Your task to perform on an android device: change the clock display to analog Image 0: 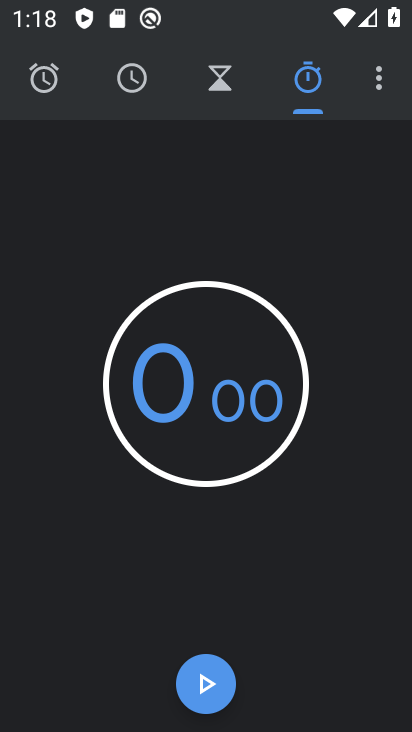
Step 0: press home button
Your task to perform on an android device: change the clock display to analog Image 1: 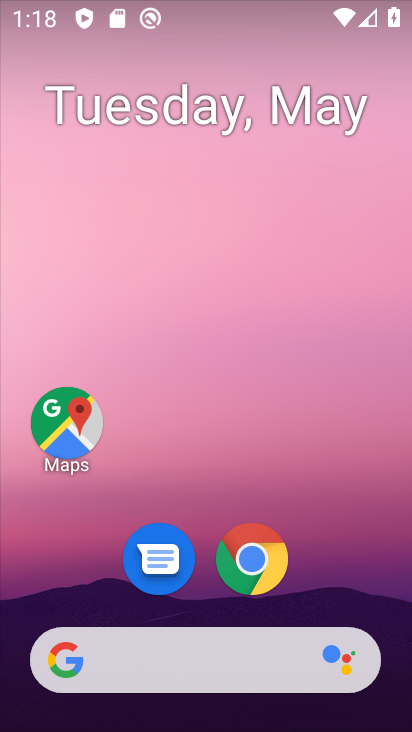
Step 1: drag from (394, 627) to (285, 40)
Your task to perform on an android device: change the clock display to analog Image 2: 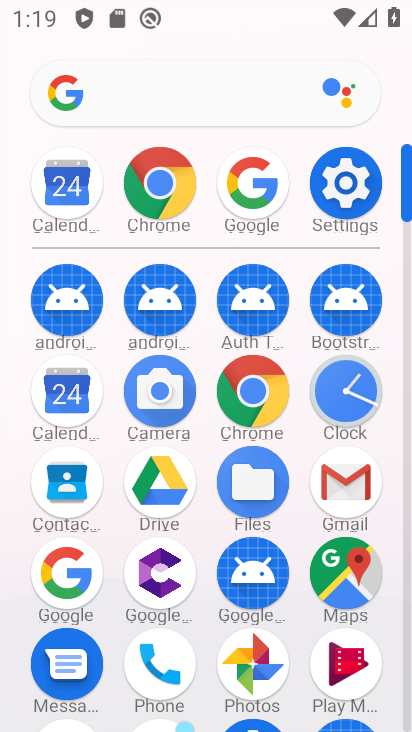
Step 2: click (363, 415)
Your task to perform on an android device: change the clock display to analog Image 3: 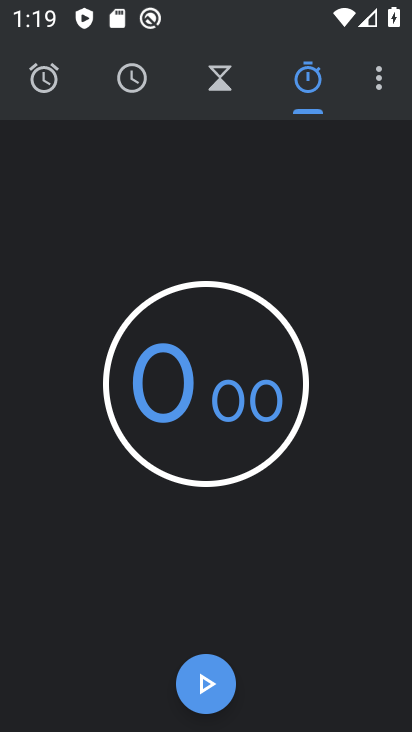
Step 3: click (392, 86)
Your task to perform on an android device: change the clock display to analog Image 4: 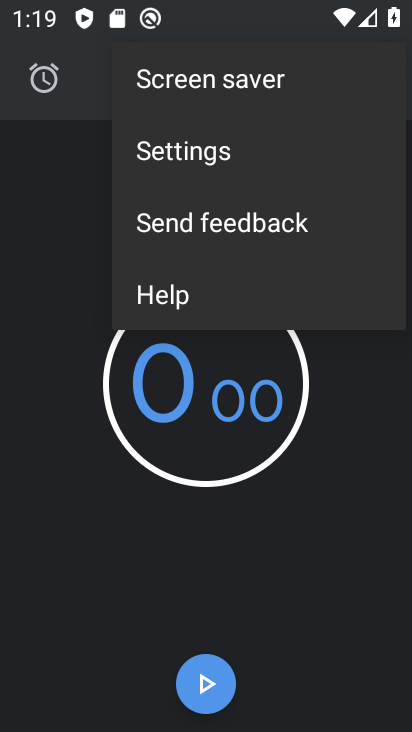
Step 4: click (160, 174)
Your task to perform on an android device: change the clock display to analog Image 5: 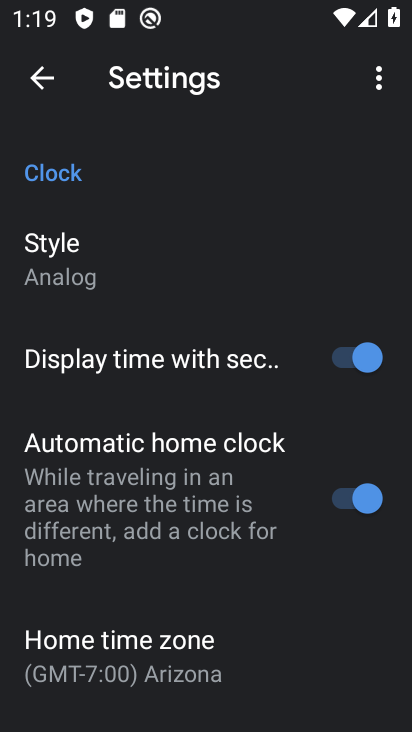
Step 5: click (103, 266)
Your task to perform on an android device: change the clock display to analog Image 6: 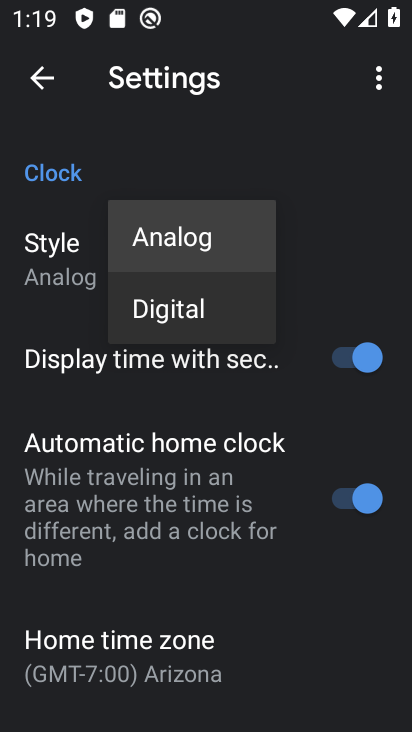
Step 6: click (199, 231)
Your task to perform on an android device: change the clock display to analog Image 7: 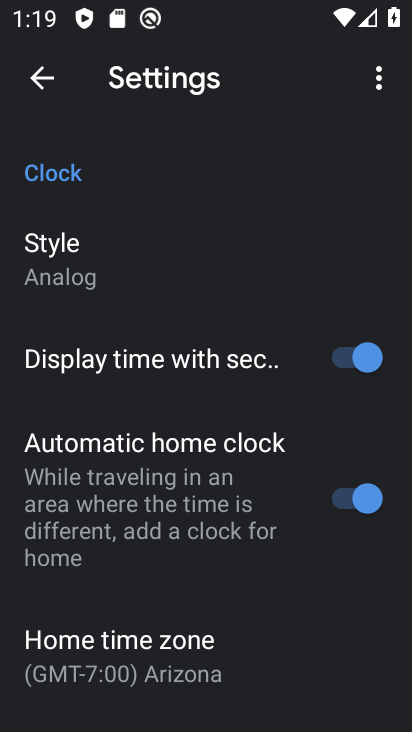
Step 7: task complete